Your task to perform on an android device: Search for vegetarian restaurants on Maps Image 0: 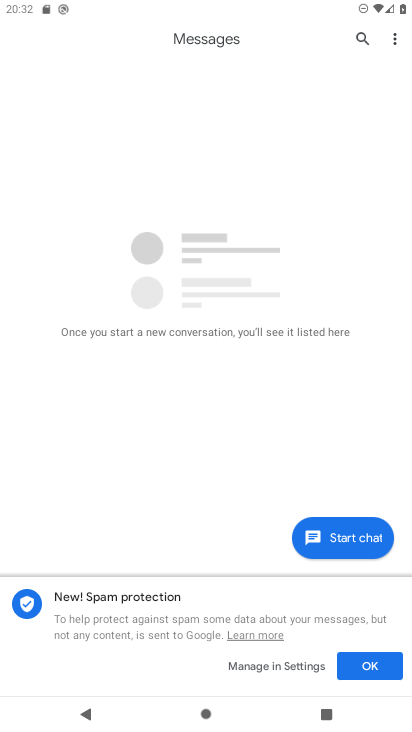
Step 0: press home button
Your task to perform on an android device: Search for vegetarian restaurants on Maps Image 1: 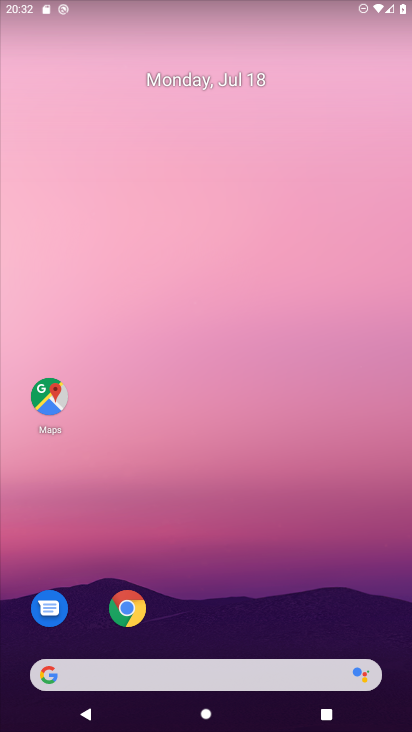
Step 1: click (50, 398)
Your task to perform on an android device: Search for vegetarian restaurants on Maps Image 2: 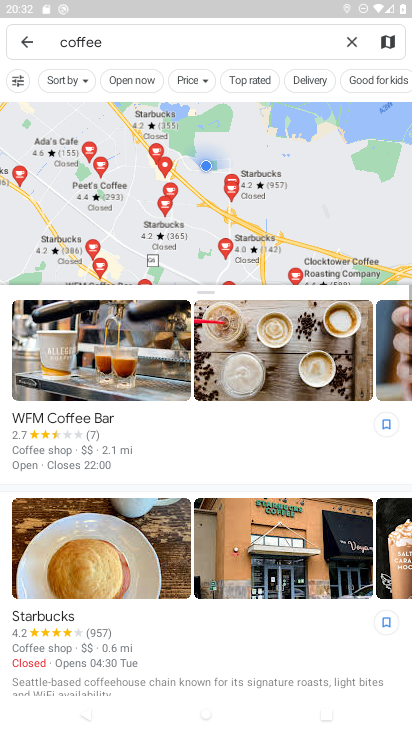
Step 2: click (347, 41)
Your task to perform on an android device: Search for vegetarian restaurants on Maps Image 3: 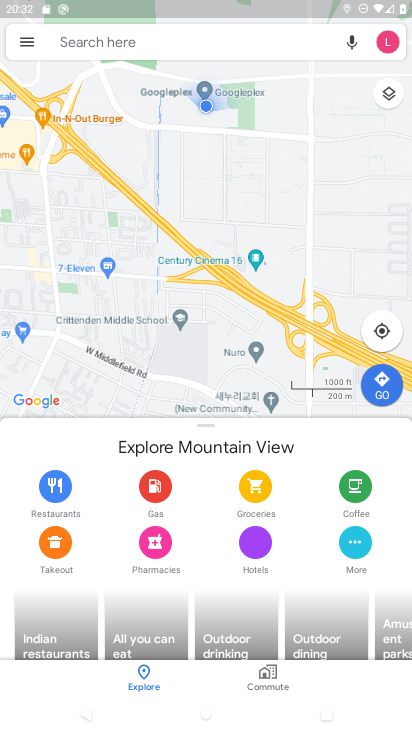
Step 3: click (151, 38)
Your task to perform on an android device: Search for vegetarian restaurants on Maps Image 4: 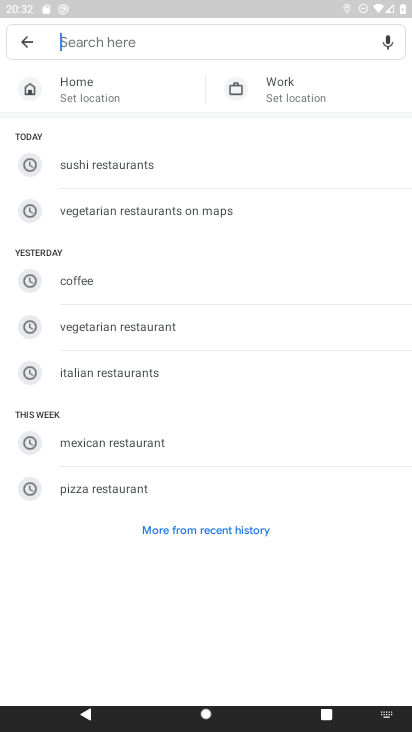
Step 4: click (136, 49)
Your task to perform on an android device: Search for vegetarian restaurants on Maps Image 5: 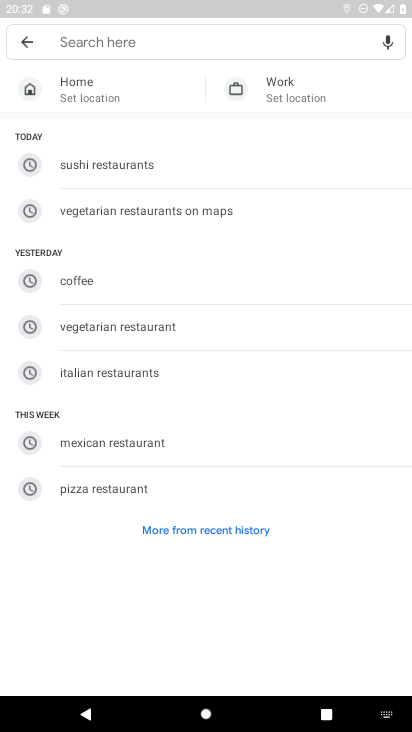
Step 5: click (183, 208)
Your task to perform on an android device: Search for vegetarian restaurants on Maps Image 6: 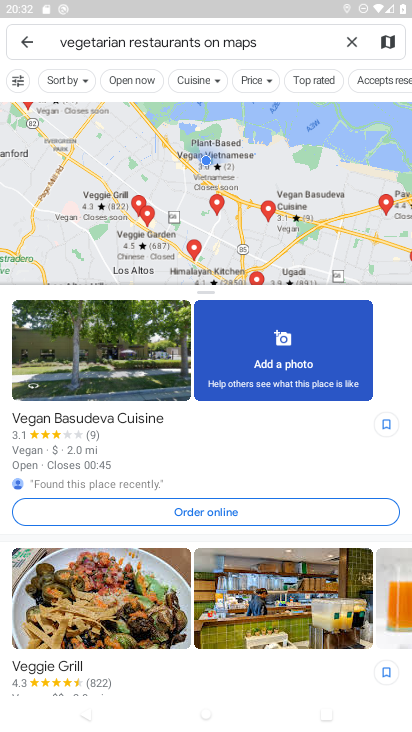
Step 6: task complete